Your task to perform on an android device: turn on priority inbox in the gmail app Image 0: 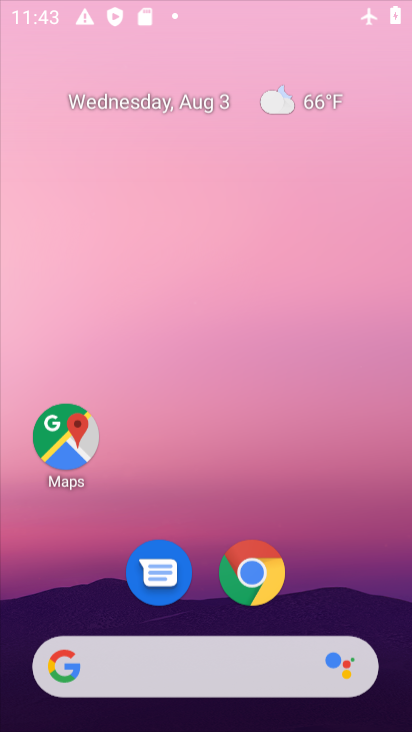
Step 0: drag from (361, 167) to (310, 36)
Your task to perform on an android device: turn on priority inbox in the gmail app Image 1: 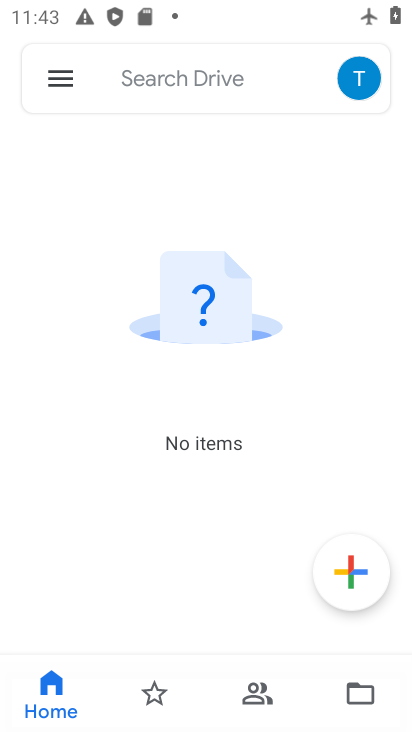
Step 1: press home button
Your task to perform on an android device: turn on priority inbox in the gmail app Image 2: 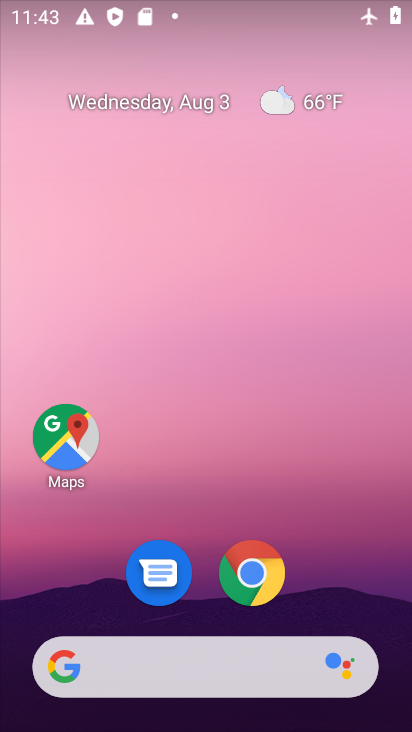
Step 2: drag from (358, 566) to (311, 132)
Your task to perform on an android device: turn on priority inbox in the gmail app Image 3: 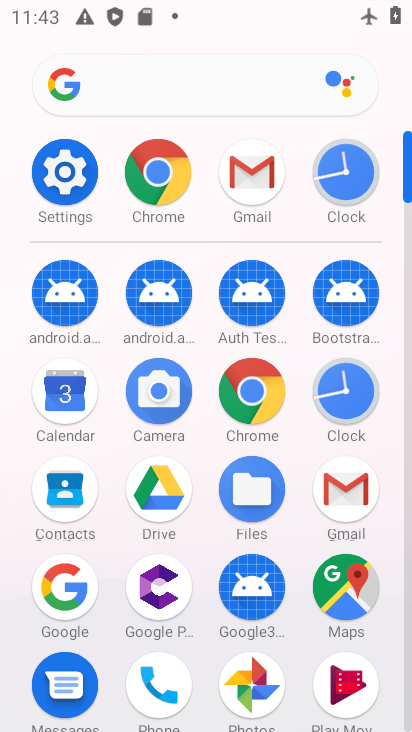
Step 3: click (258, 188)
Your task to perform on an android device: turn on priority inbox in the gmail app Image 4: 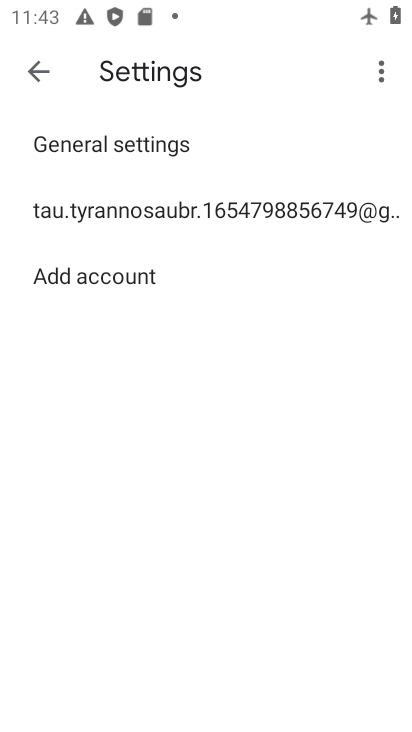
Step 4: click (224, 216)
Your task to perform on an android device: turn on priority inbox in the gmail app Image 5: 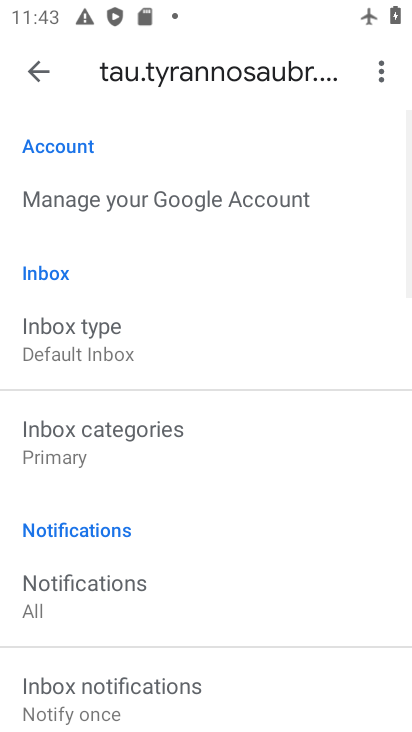
Step 5: click (87, 337)
Your task to perform on an android device: turn on priority inbox in the gmail app Image 6: 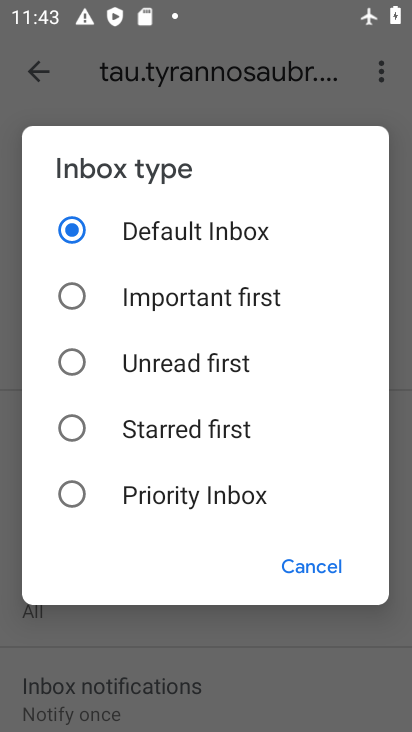
Step 6: task complete